Your task to perform on an android device: open wifi settings Image 0: 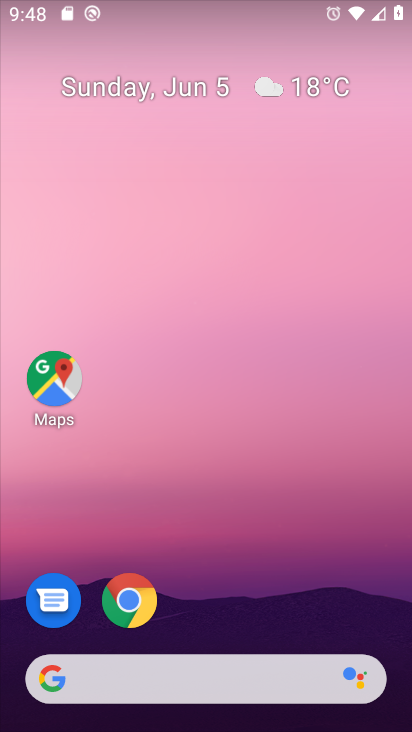
Step 0: drag from (219, 581) to (254, 1)
Your task to perform on an android device: open wifi settings Image 1: 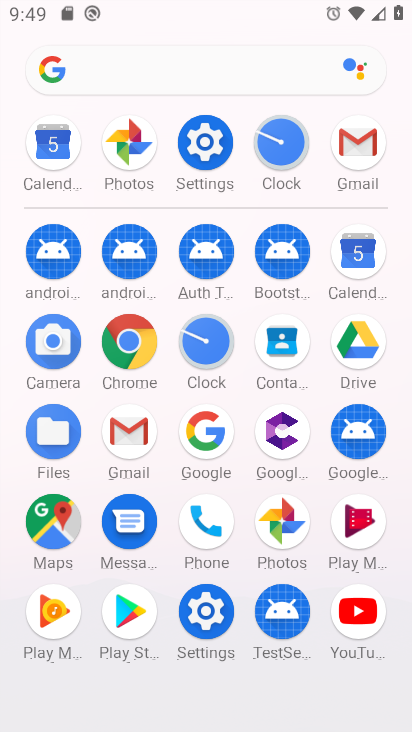
Step 1: click (210, 141)
Your task to perform on an android device: open wifi settings Image 2: 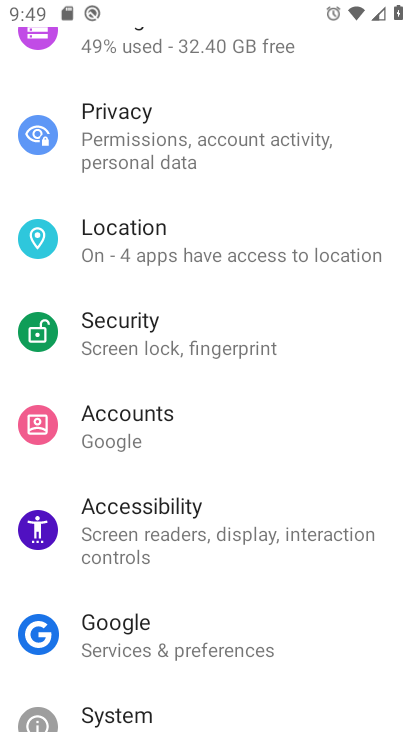
Step 2: drag from (205, 204) to (221, 647)
Your task to perform on an android device: open wifi settings Image 3: 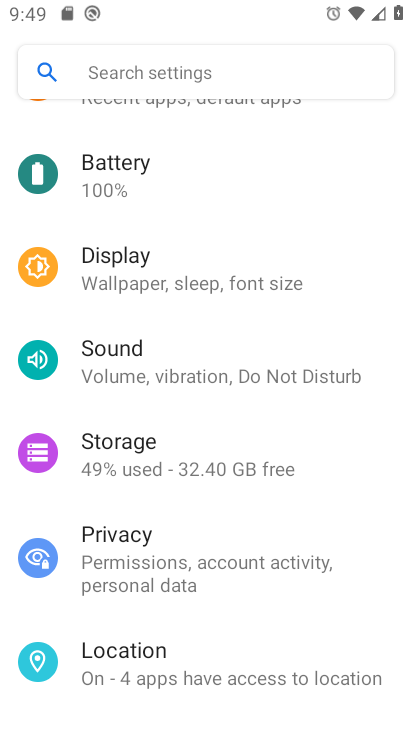
Step 3: drag from (225, 247) to (216, 578)
Your task to perform on an android device: open wifi settings Image 4: 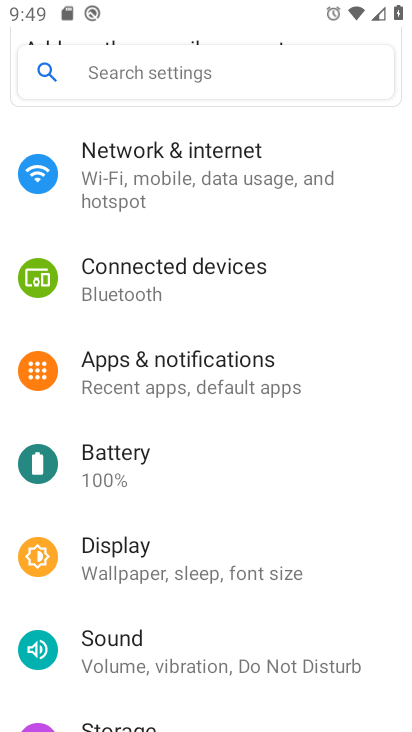
Step 4: click (207, 182)
Your task to perform on an android device: open wifi settings Image 5: 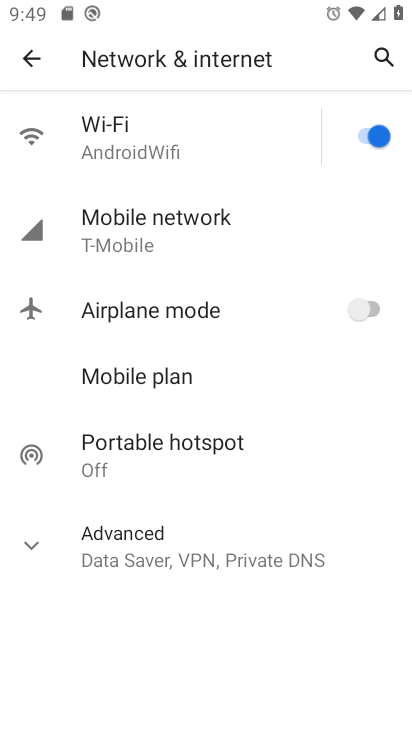
Step 5: task complete